Your task to perform on an android device: manage bookmarks in the chrome app Image 0: 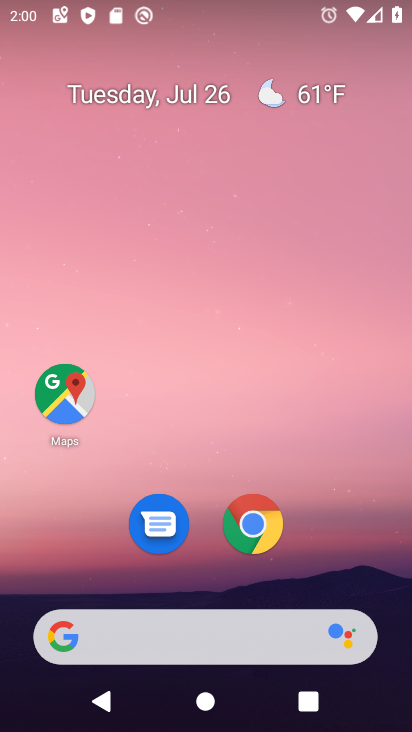
Step 0: press home button
Your task to perform on an android device: manage bookmarks in the chrome app Image 1: 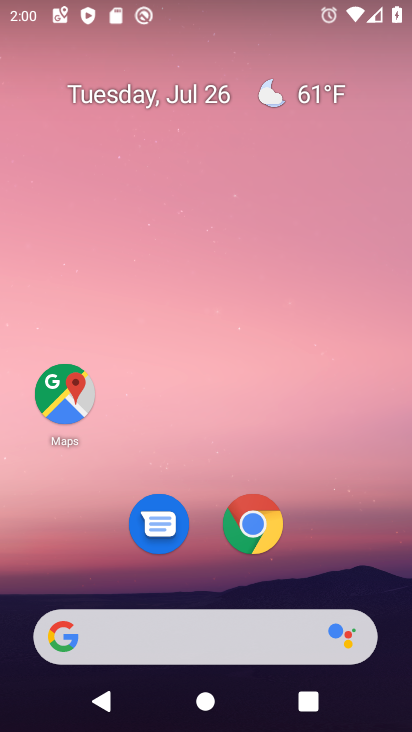
Step 1: click (256, 528)
Your task to perform on an android device: manage bookmarks in the chrome app Image 2: 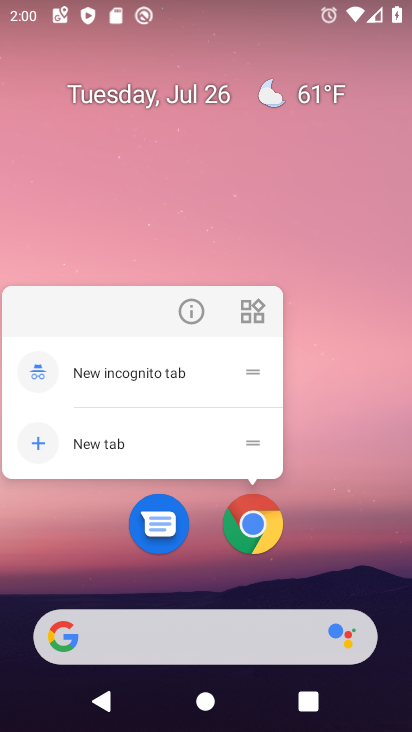
Step 2: click (256, 527)
Your task to perform on an android device: manage bookmarks in the chrome app Image 3: 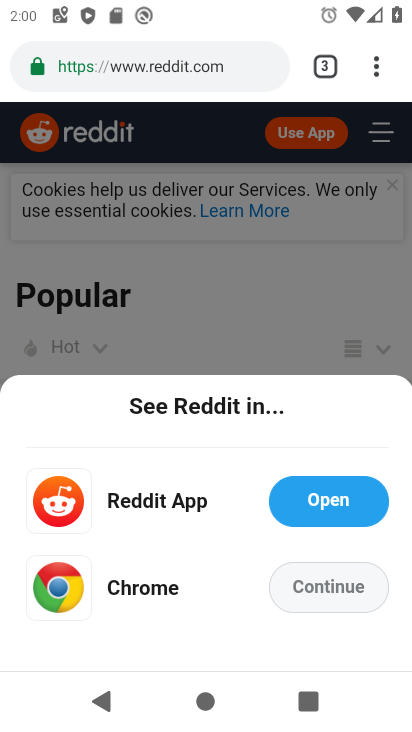
Step 3: drag from (375, 64) to (171, 249)
Your task to perform on an android device: manage bookmarks in the chrome app Image 4: 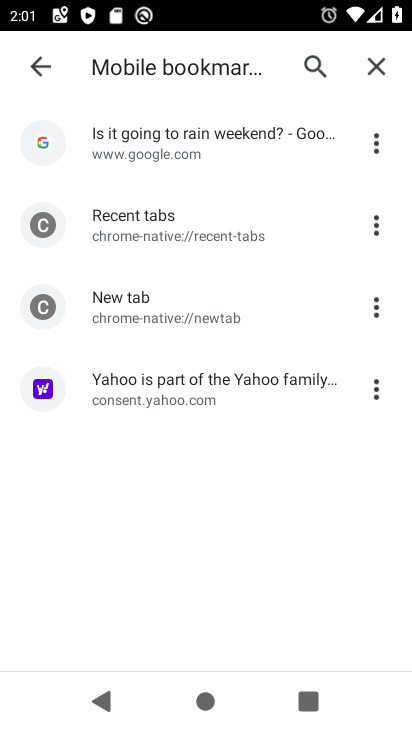
Step 4: click (383, 387)
Your task to perform on an android device: manage bookmarks in the chrome app Image 5: 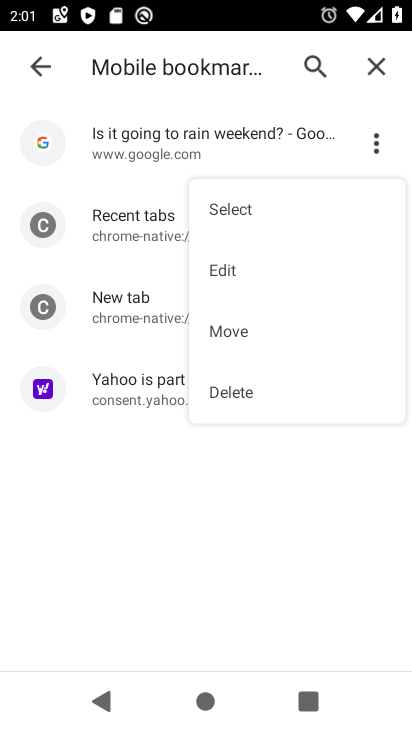
Step 5: click (232, 388)
Your task to perform on an android device: manage bookmarks in the chrome app Image 6: 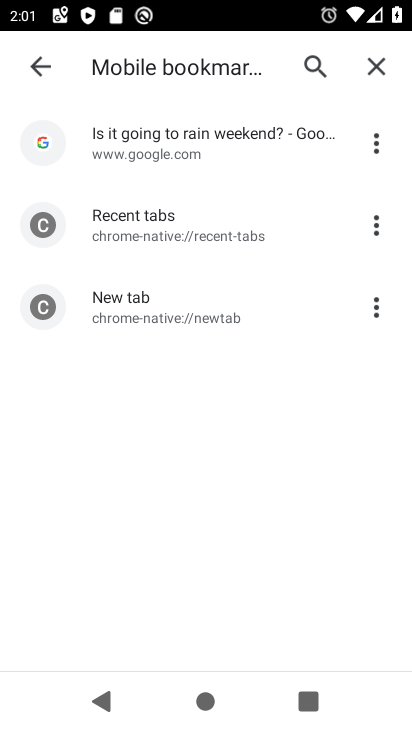
Step 6: task complete